Your task to perform on an android device: Go to Wikipedia Image 0: 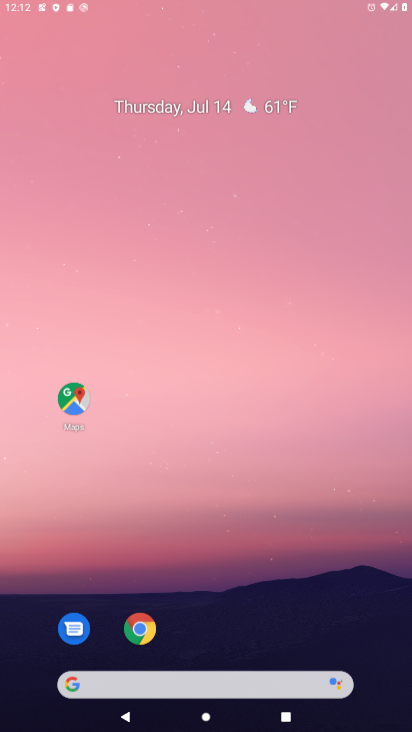
Step 0: press home button
Your task to perform on an android device: Go to Wikipedia Image 1: 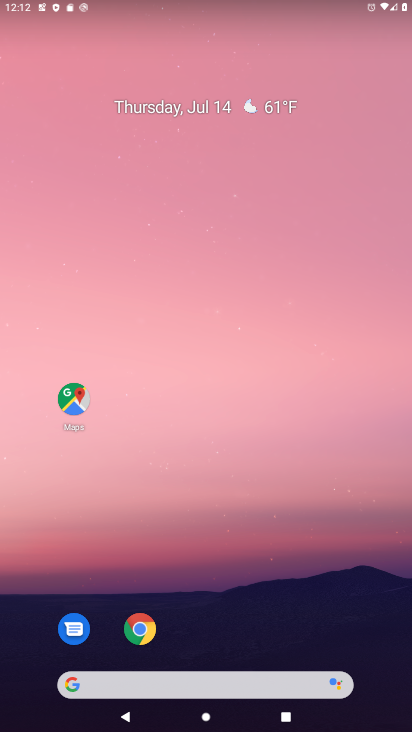
Step 1: click (138, 625)
Your task to perform on an android device: Go to Wikipedia Image 2: 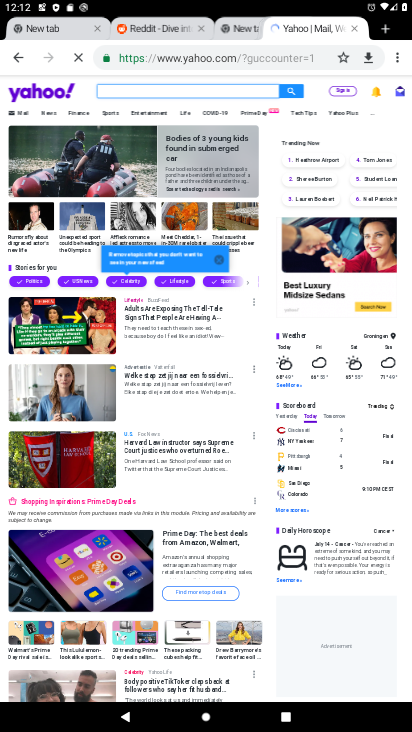
Step 2: click (396, 61)
Your task to perform on an android device: Go to Wikipedia Image 3: 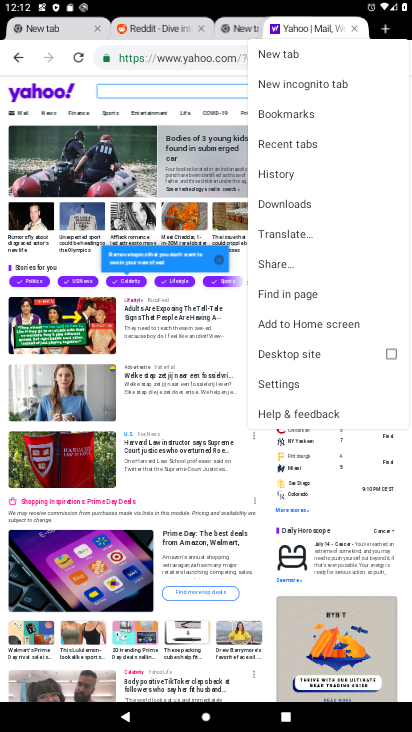
Step 3: click (281, 51)
Your task to perform on an android device: Go to Wikipedia Image 4: 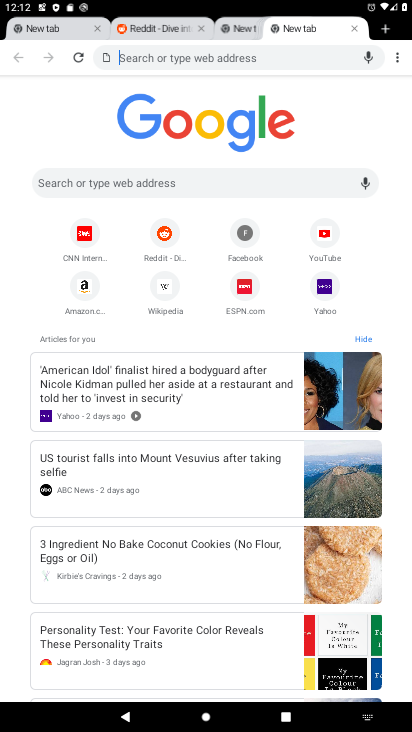
Step 4: click (165, 289)
Your task to perform on an android device: Go to Wikipedia Image 5: 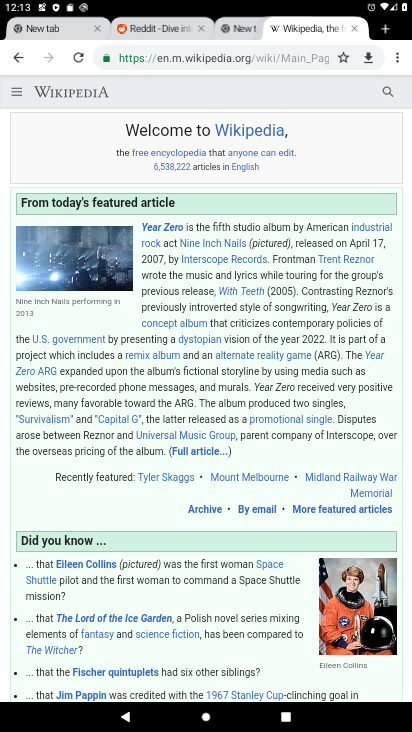
Step 5: task complete